Your task to perform on an android device: toggle priority inbox in the gmail app Image 0: 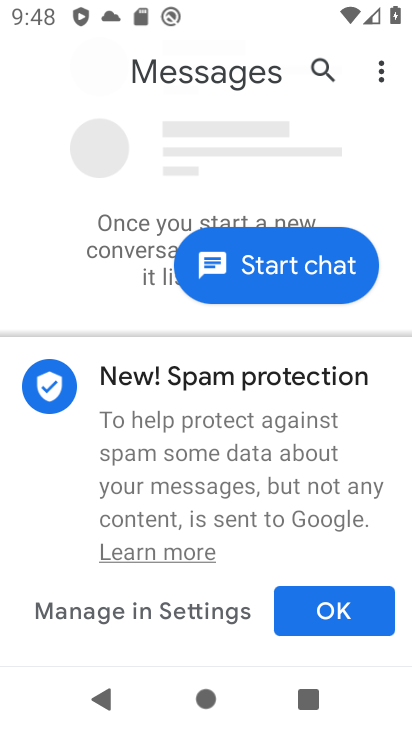
Step 0: press home button
Your task to perform on an android device: toggle priority inbox in the gmail app Image 1: 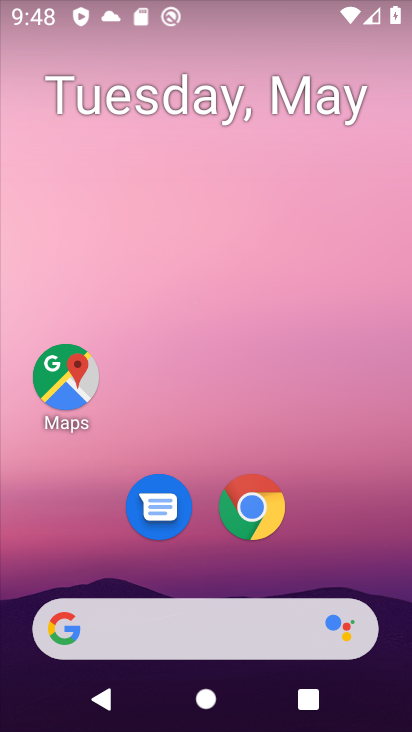
Step 1: drag from (359, 553) to (202, 1)
Your task to perform on an android device: toggle priority inbox in the gmail app Image 2: 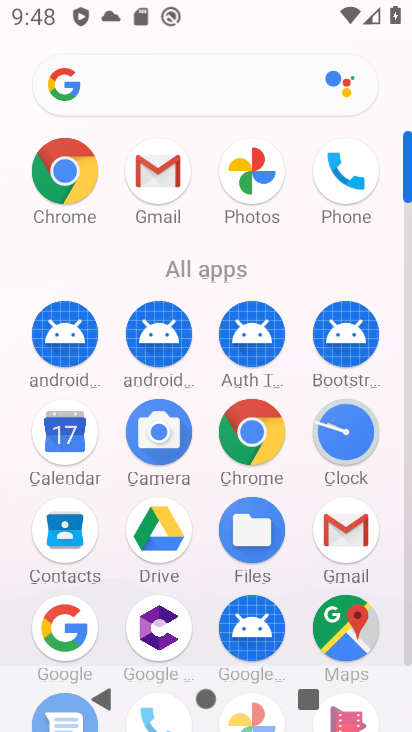
Step 2: click (161, 182)
Your task to perform on an android device: toggle priority inbox in the gmail app Image 3: 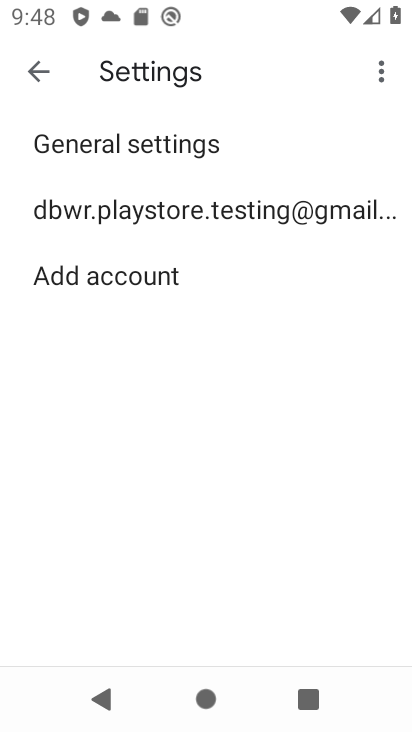
Step 3: click (177, 213)
Your task to perform on an android device: toggle priority inbox in the gmail app Image 4: 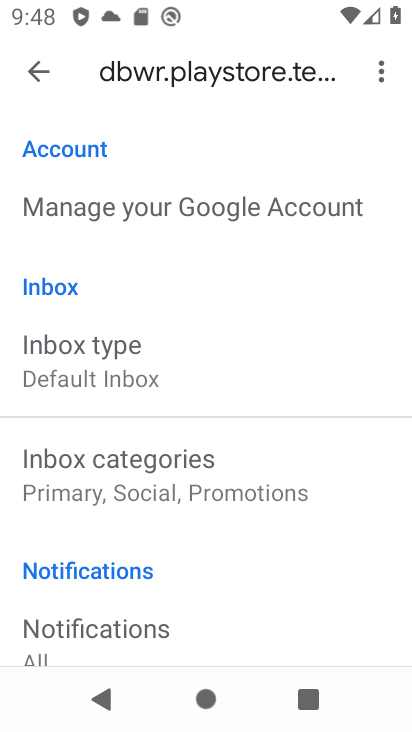
Step 4: click (195, 366)
Your task to perform on an android device: toggle priority inbox in the gmail app Image 5: 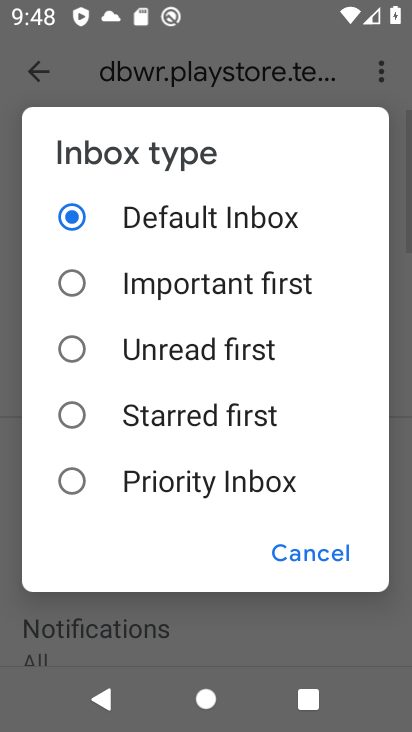
Step 5: click (232, 485)
Your task to perform on an android device: toggle priority inbox in the gmail app Image 6: 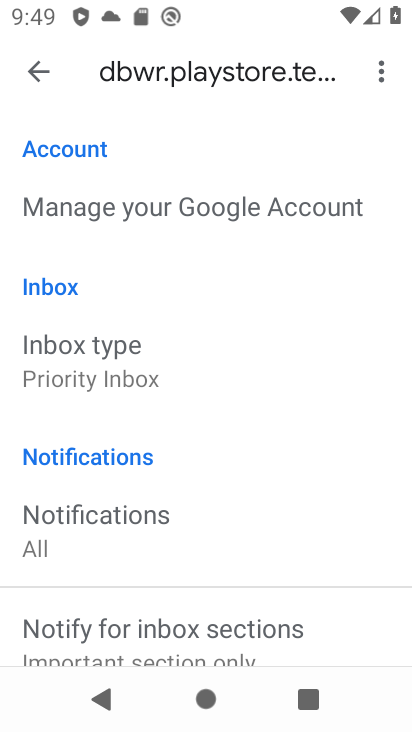
Step 6: task complete